Your task to perform on an android device: Open the phone app and click the voicemail tab. Image 0: 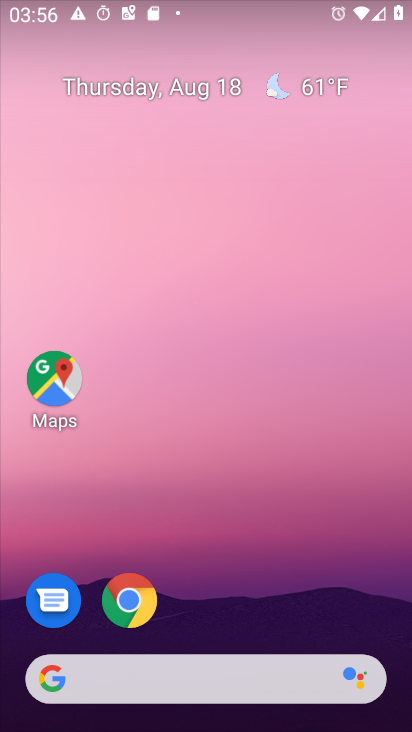
Step 0: press home button
Your task to perform on an android device: Open the phone app and click the voicemail tab. Image 1: 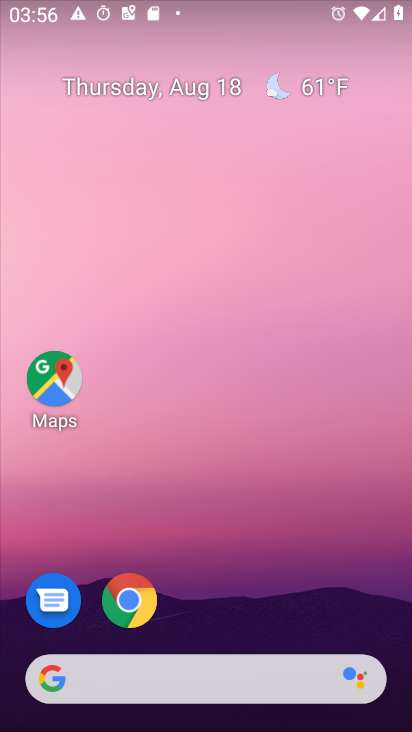
Step 1: drag from (232, 638) to (244, 172)
Your task to perform on an android device: Open the phone app and click the voicemail tab. Image 2: 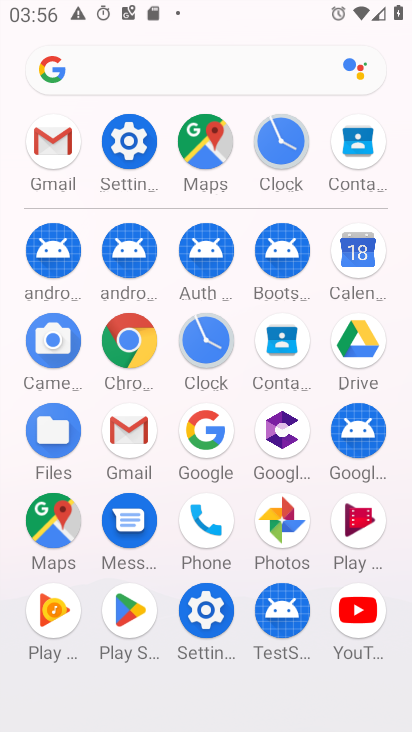
Step 2: click (203, 526)
Your task to perform on an android device: Open the phone app and click the voicemail tab. Image 3: 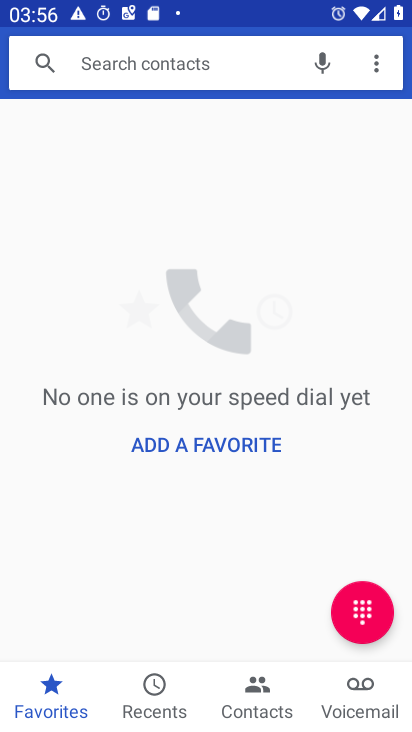
Step 3: click (354, 684)
Your task to perform on an android device: Open the phone app and click the voicemail tab. Image 4: 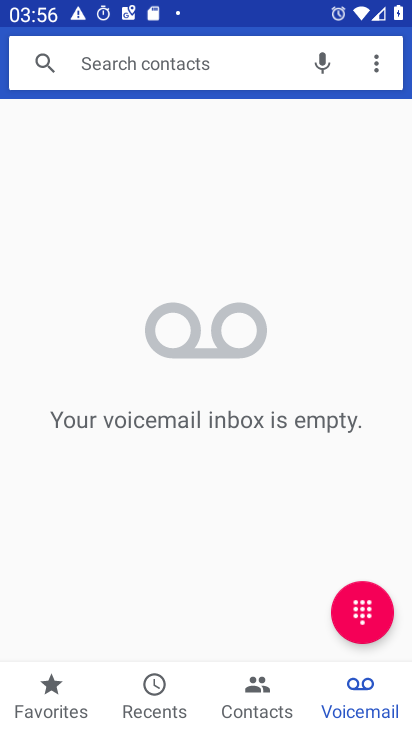
Step 4: task complete